Your task to perform on an android device: Is it going to rain this weekend? Image 0: 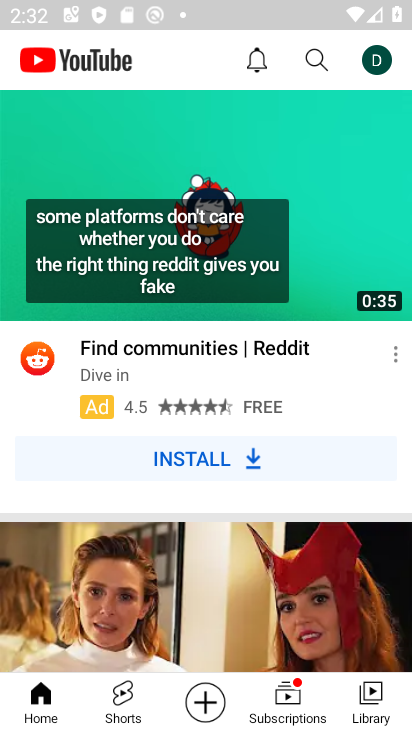
Step 0: press back button
Your task to perform on an android device: Is it going to rain this weekend? Image 1: 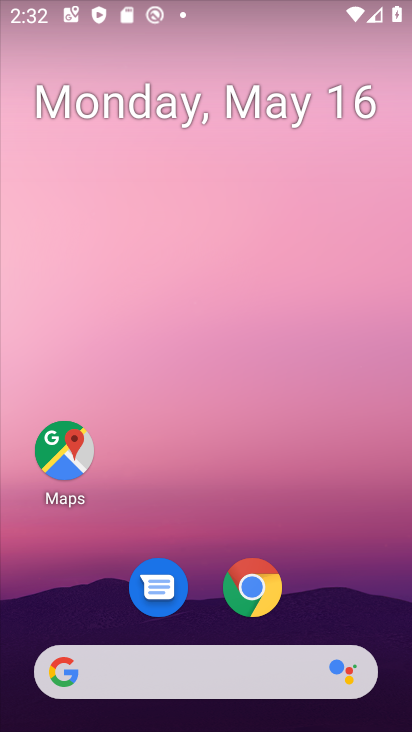
Step 1: drag from (222, 548) to (150, 14)
Your task to perform on an android device: Is it going to rain this weekend? Image 2: 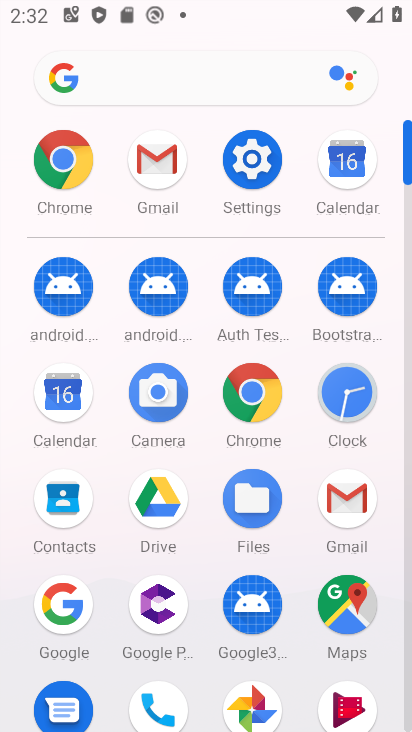
Step 2: press home button
Your task to perform on an android device: Is it going to rain this weekend? Image 3: 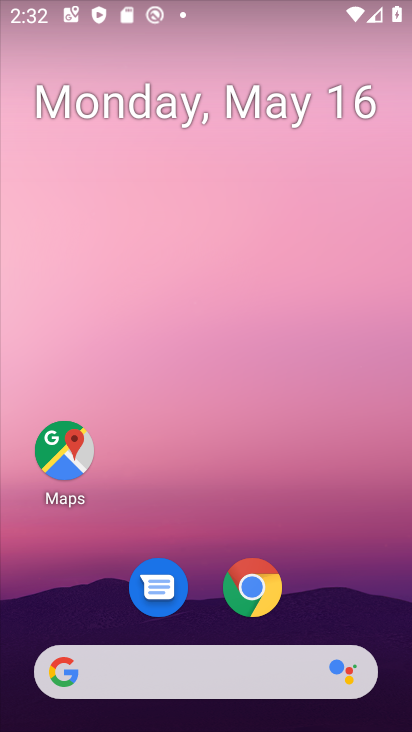
Step 3: drag from (9, 202) to (411, 374)
Your task to perform on an android device: Is it going to rain this weekend? Image 4: 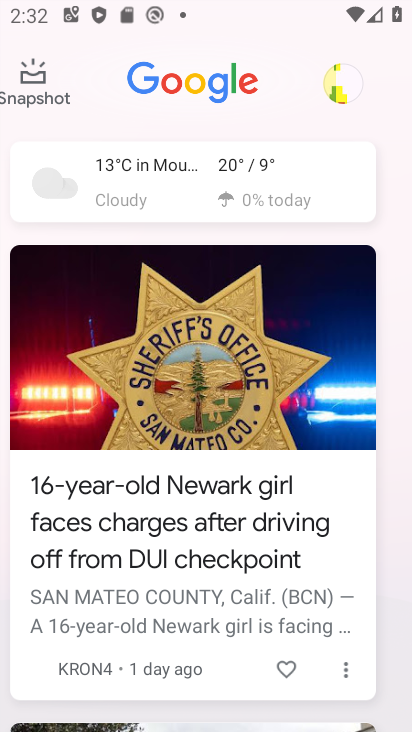
Step 4: drag from (18, 129) to (396, 371)
Your task to perform on an android device: Is it going to rain this weekend? Image 5: 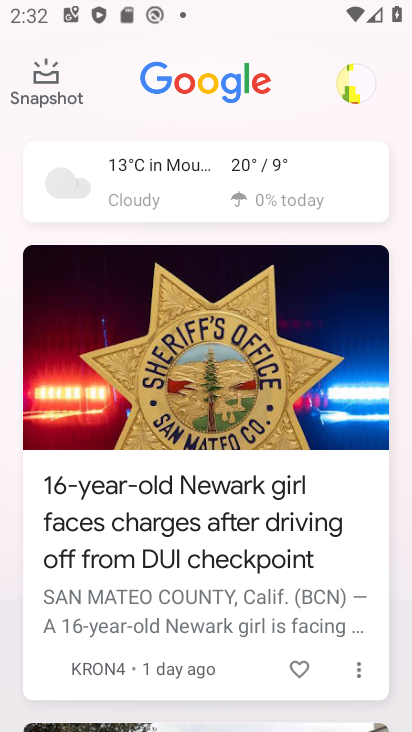
Step 5: click (155, 188)
Your task to perform on an android device: Is it going to rain this weekend? Image 6: 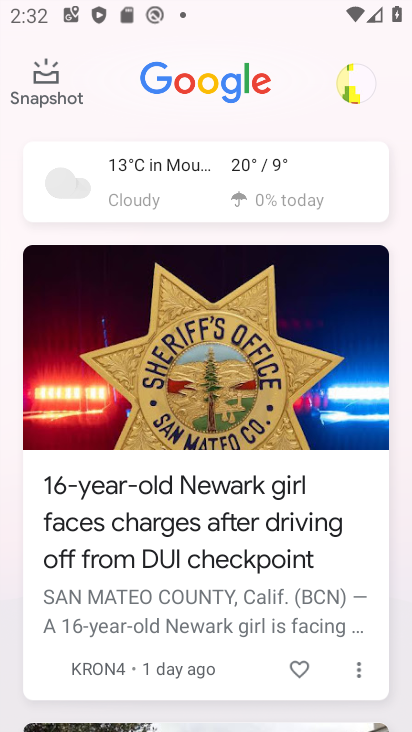
Step 6: click (155, 188)
Your task to perform on an android device: Is it going to rain this weekend? Image 7: 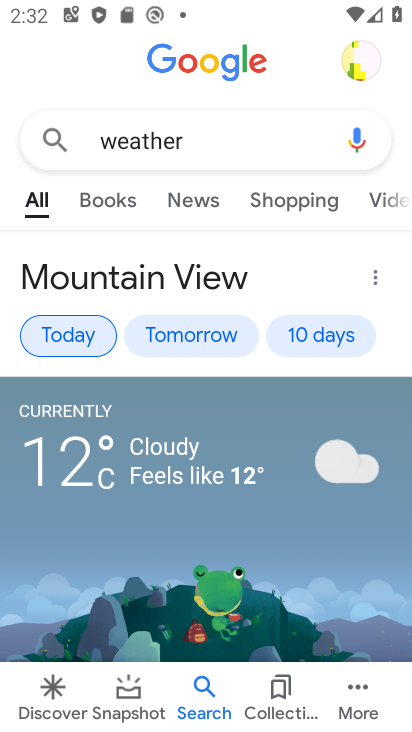
Step 7: task complete